Your task to perform on an android device: Open Yahoo.com Image 0: 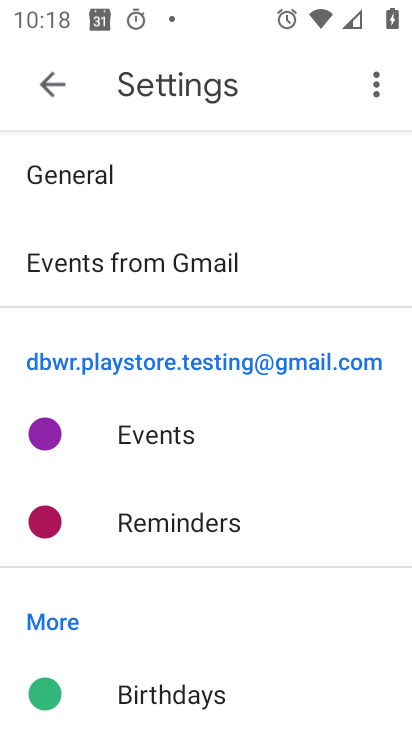
Step 0: press home button
Your task to perform on an android device: Open Yahoo.com Image 1: 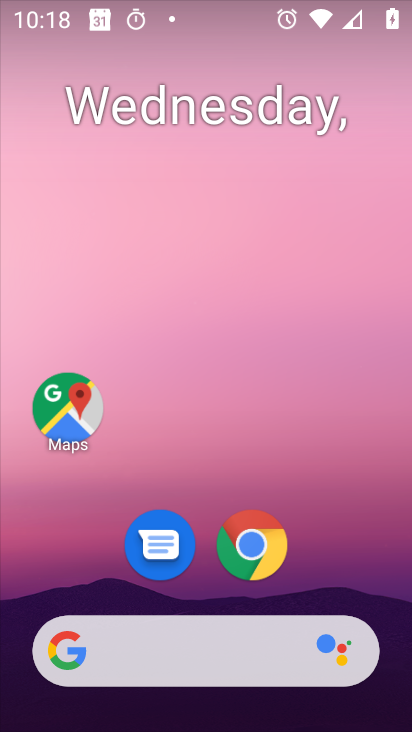
Step 1: click (247, 557)
Your task to perform on an android device: Open Yahoo.com Image 2: 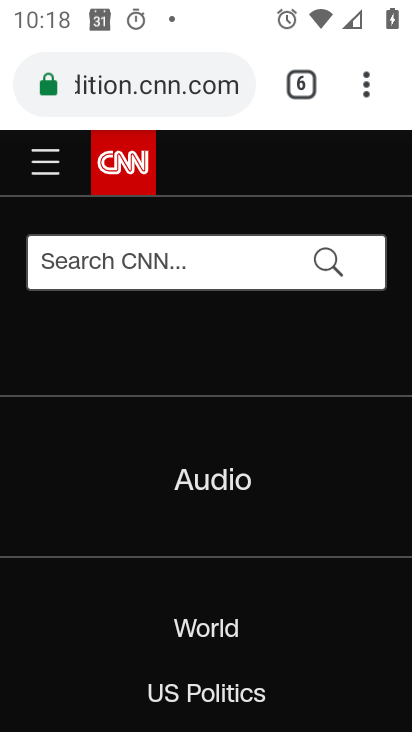
Step 2: drag from (363, 86) to (190, 178)
Your task to perform on an android device: Open Yahoo.com Image 3: 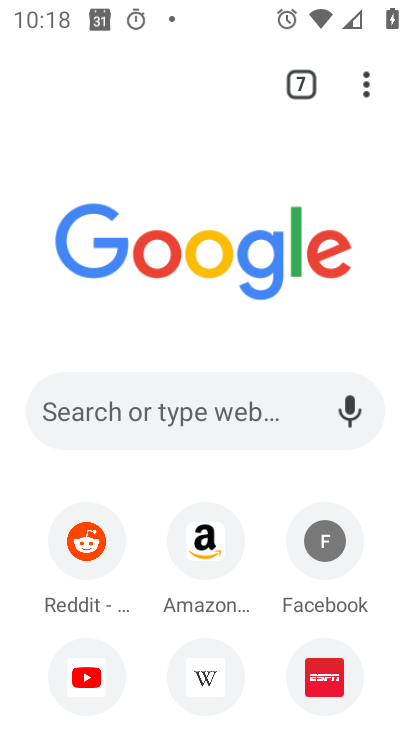
Step 3: drag from (179, 601) to (279, 256)
Your task to perform on an android device: Open Yahoo.com Image 4: 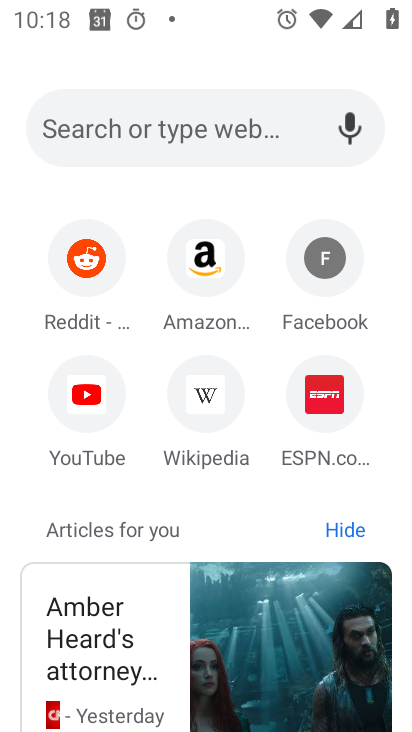
Step 4: click (173, 129)
Your task to perform on an android device: Open Yahoo.com Image 5: 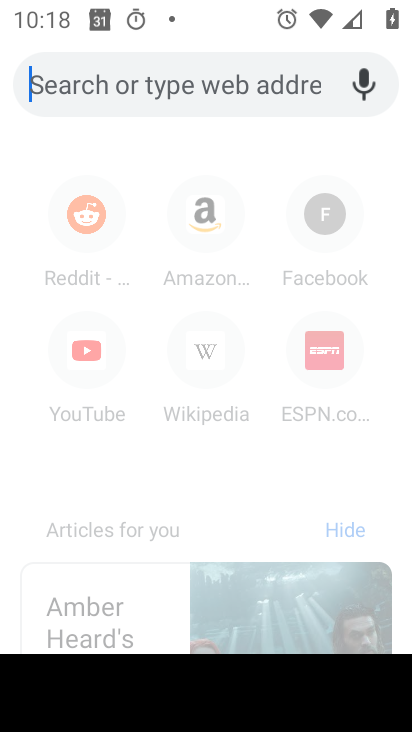
Step 5: type "yahoo.com"
Your task to perform on an android device: Open Yahoo.com Image 6: 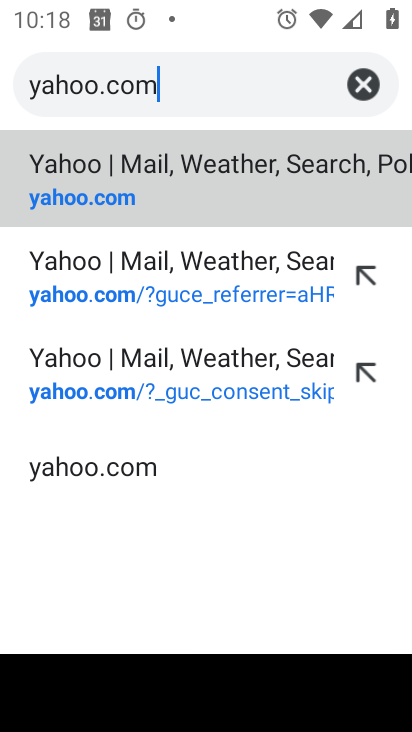
Step 6: click (176, 186)
Your task to perform on an android device: Open Yahoo.com Image 7: 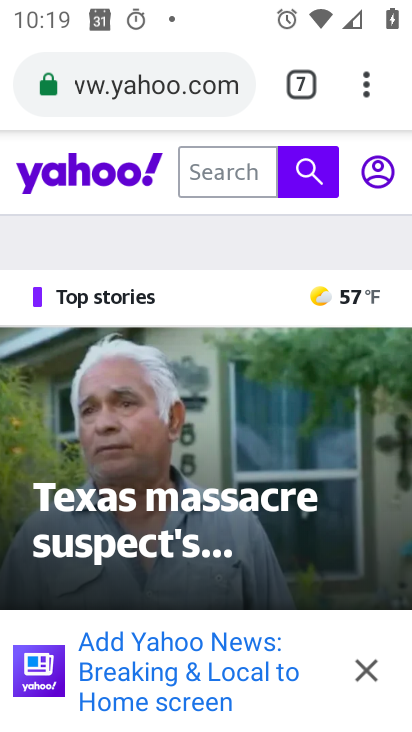
Step 7: task complete